Your task to perform on an android device: open app "ZOOM Cloud Meetings" (install if not already installed) and go to login screen Image 0: 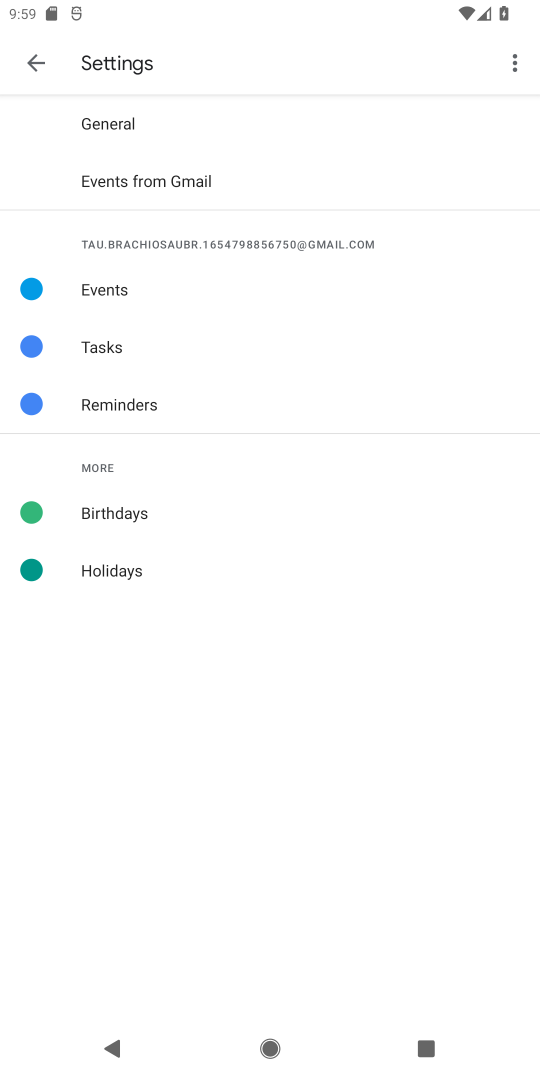
Step 0: press home button
Your task to perform on an android device: open app "ZOOM Cloud Meetings" (install if not already installed) and go to login screen Image 1: 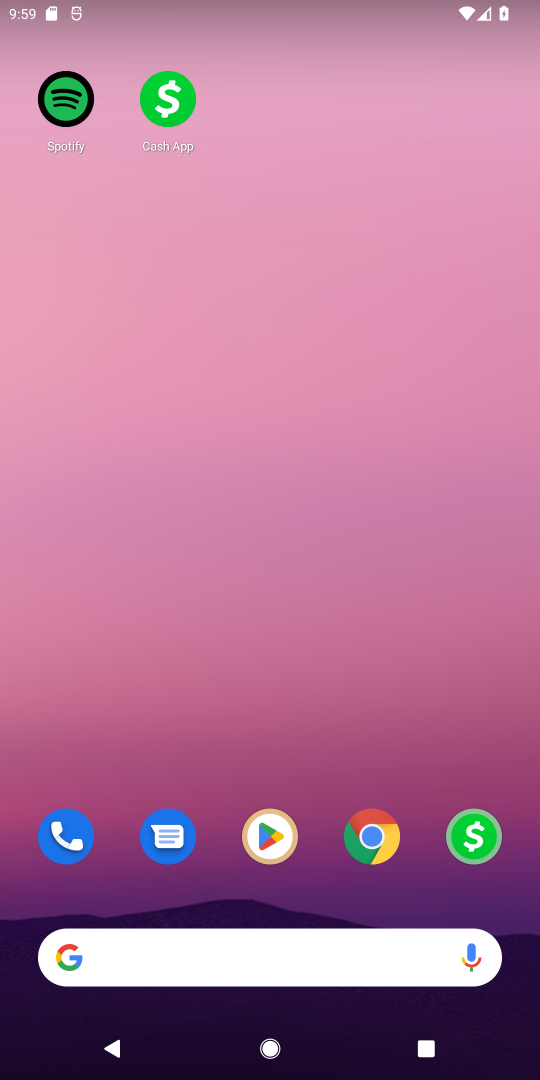
Step 1: click (282, 840)
Your task to perform on an android device: open app "ZOOM Cloud Meetings" (install if not already installed) and go to login screen Image 2: 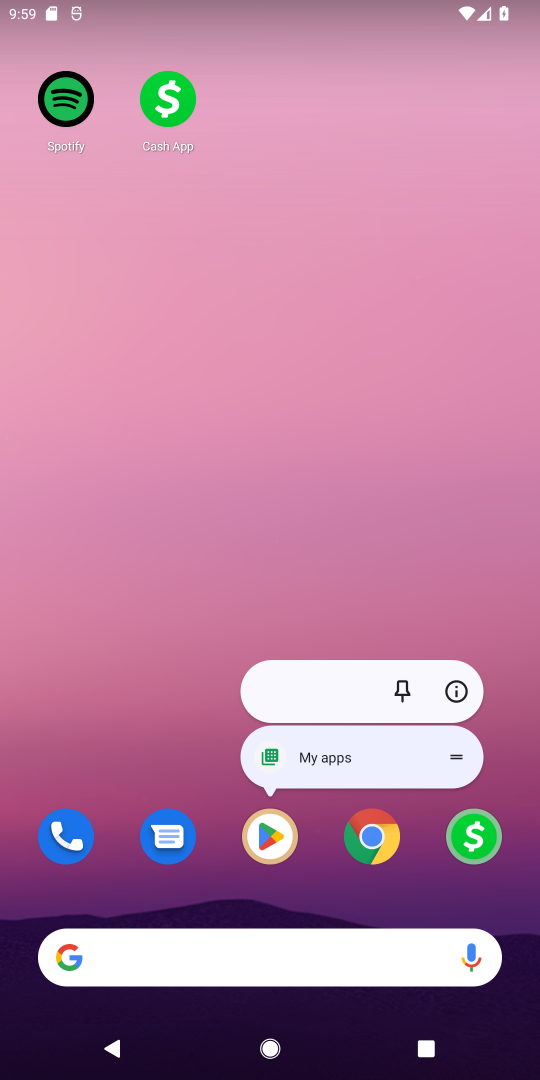
Step 2: click (282, 840)
Your task to perform on an android device: open app "ZOOM Cloud Meetings" (install if not already installed) and go to login screen Image 3: 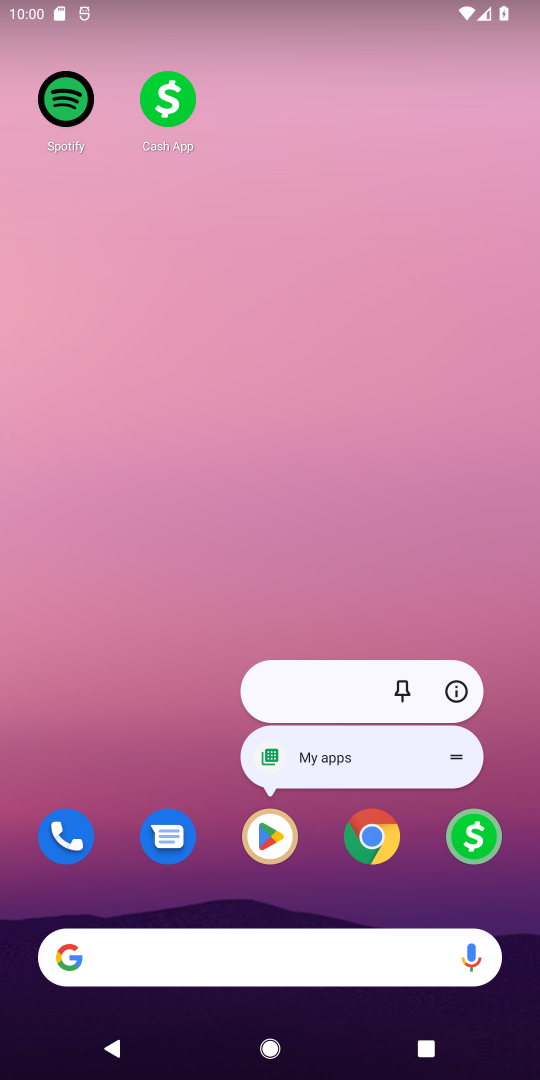
Step 3: click (269, 839)
Your task to perform on an android device: open app "ZOOM Cloud Meetings" (install if not already installed) and go to login screen Image 4: 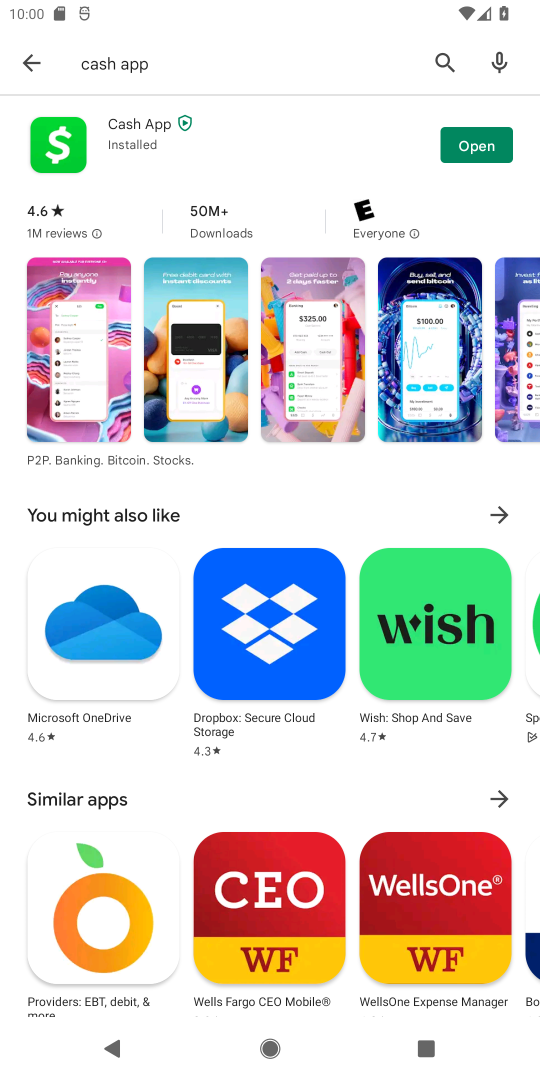
Step 4: click (435, 55)
Your task to perform on an android device: open app "ZOOM Cloud Meetings" (install if not already installed) and go to login screen Image 5: 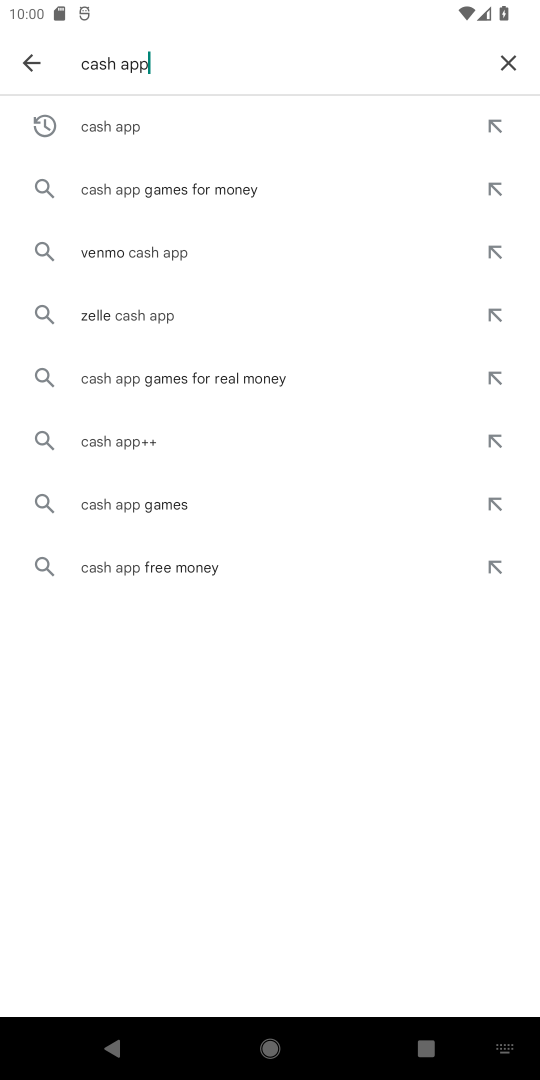
Step 5: click (507, 63)
Your task to perform on an android device: open app "ZOOM Cloud Meetings" (install if not already installed) and go to login screen Image 6: 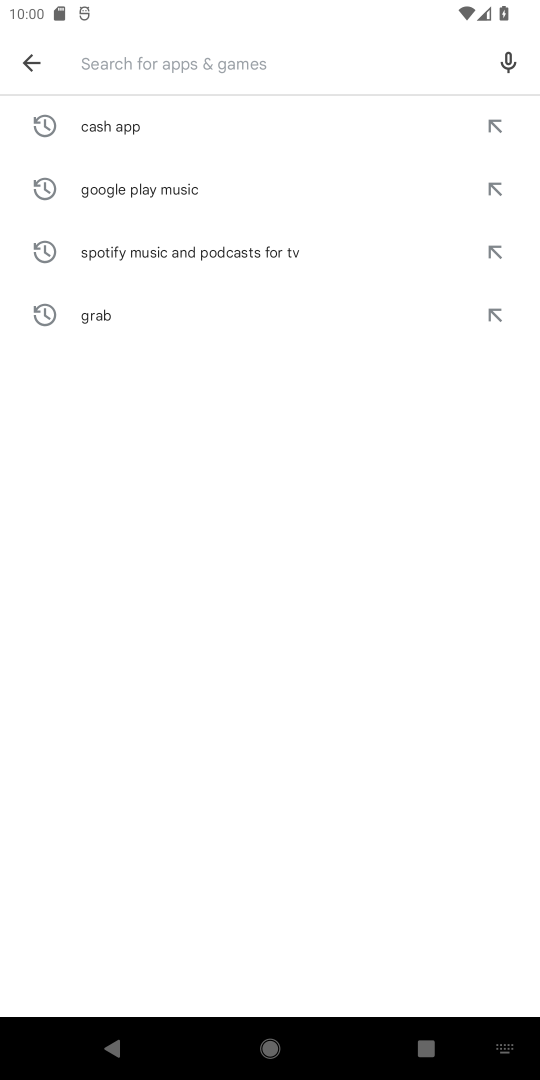
Step 6: type "ZOOM Cloud Meetings"
Your task to perform on an android device: open app "ZOOM Cloud Meetings" (install if not already installed) and go to login screen Image 7: 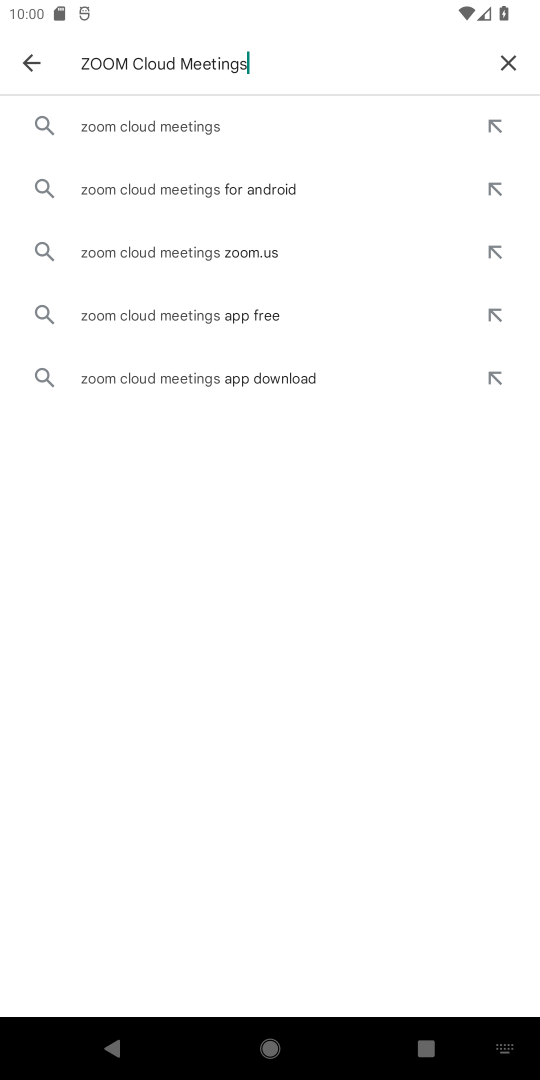
Step 7: click (232, 132)
Your task to perform on an android device: open app "ZOOM Cloud Meetings" (install if not already installed) and go to login screen Image 8: 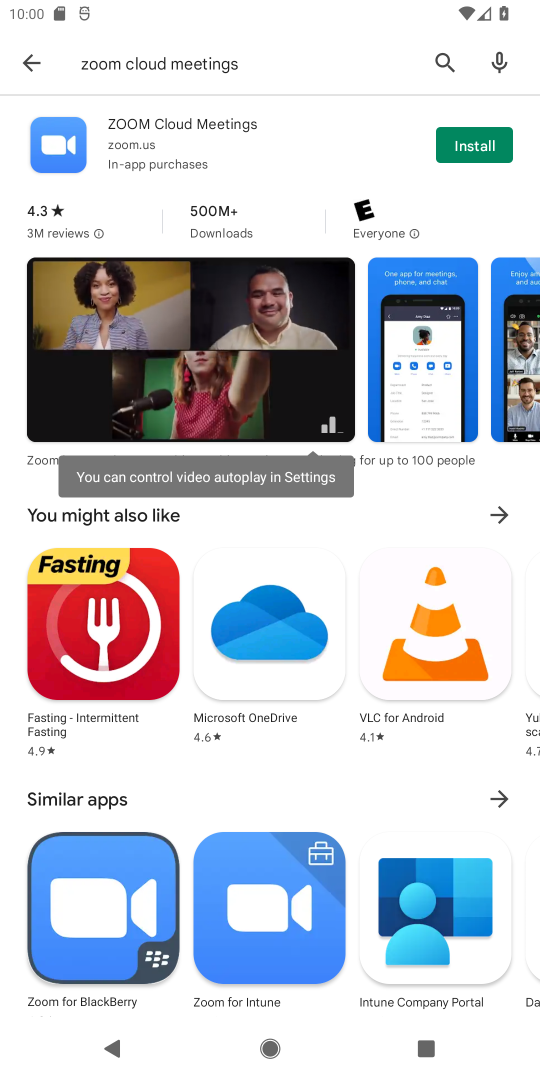
Step 8: click (497, 139)
Your task to perform on an android device: open app "ZOOM Cloud Meetings" (install if not already installed) and go to login screen Image 9: 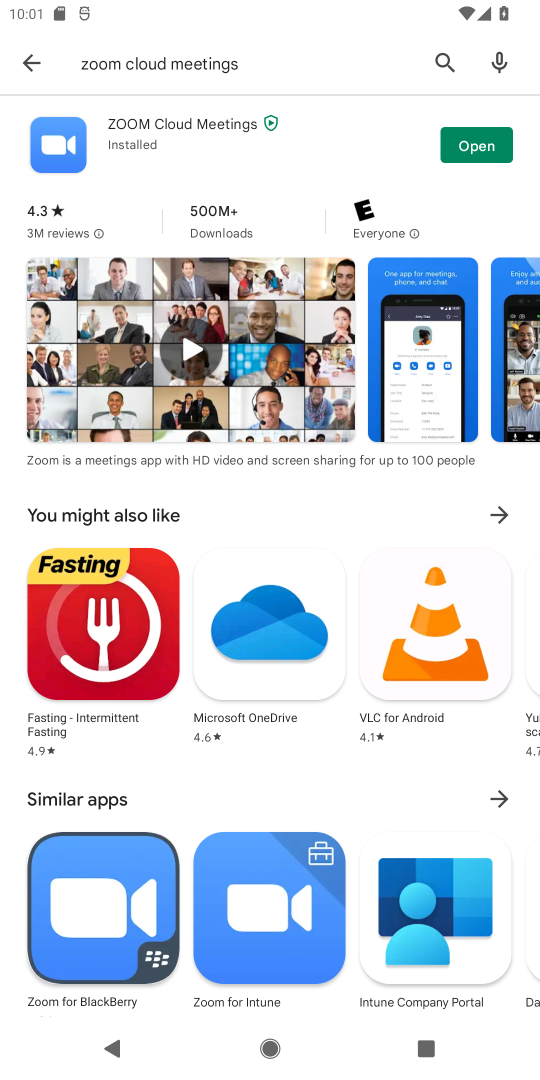
Step 9: click (462, 145)
Your task to perform on an android device: open app "ZOOM Cloud Meetings" (install if not already installed) and go to login screen Image 10: 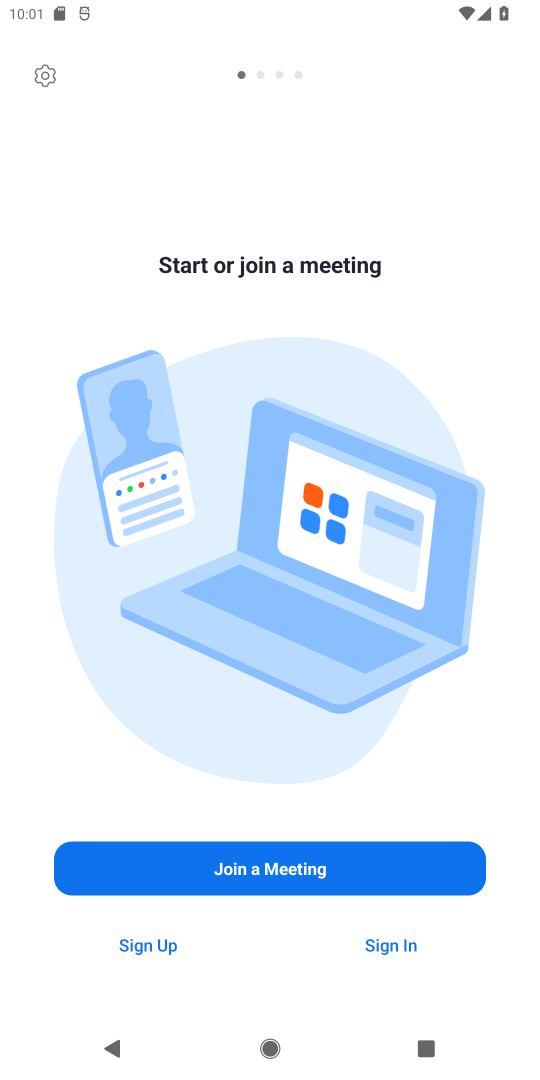
Step 10: task complete